Your task to perform on an android device: set the timer Image 0: 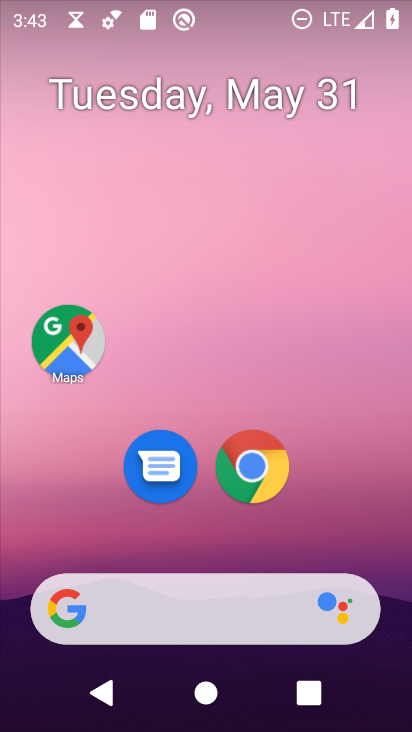
Step 0: drag from (182, 512) to (247, 48)
Your task to perform on an android device: set the timer Image 1: 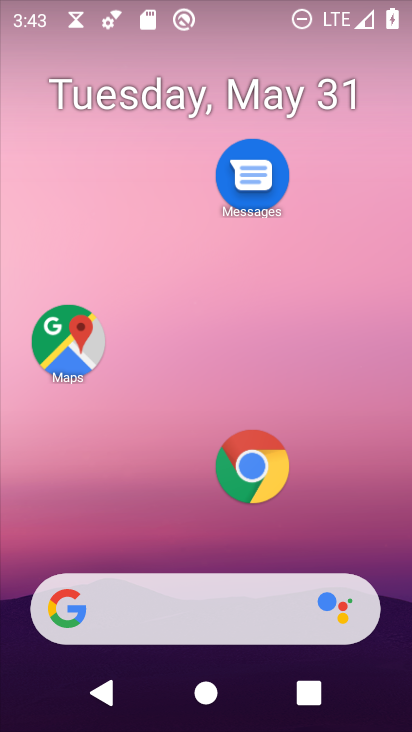
Step 1: click (200, 553)
Your task to perform on an android device: set the timer Image 2: 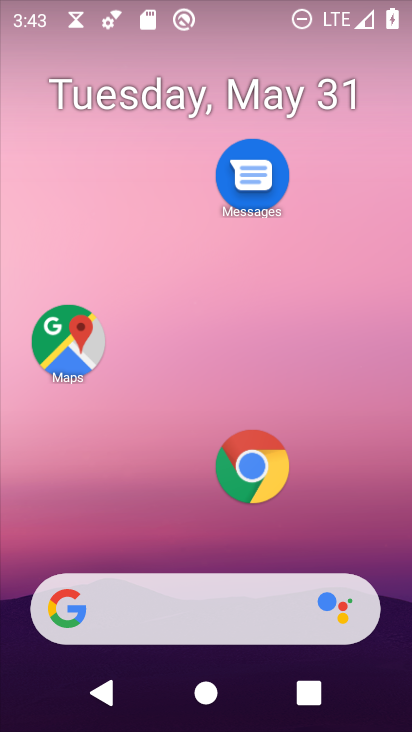
Step 2: drag from (167, 548) to (205, 51)
Your task to perform on an android device: set the timer Image 3: 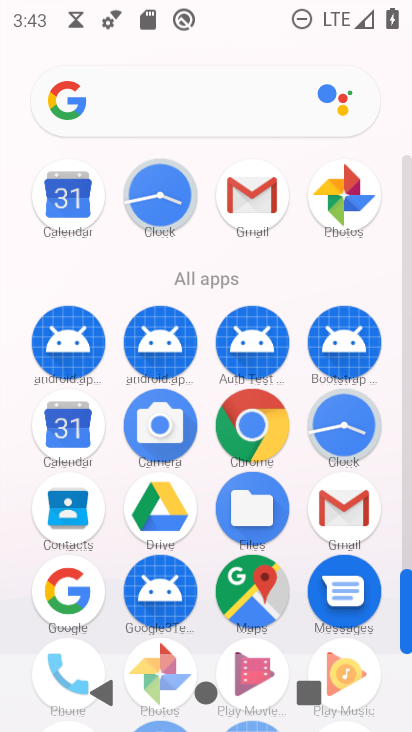
Step 3: click (365, 438)
Your task to perform on an android device: set the timer Image 4: 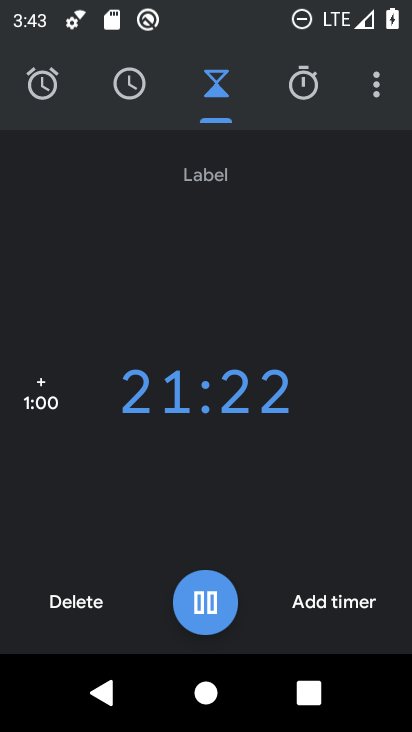
Step 4: task complete